Your task to perform on an android device: open sync settings in chrome Image 0: 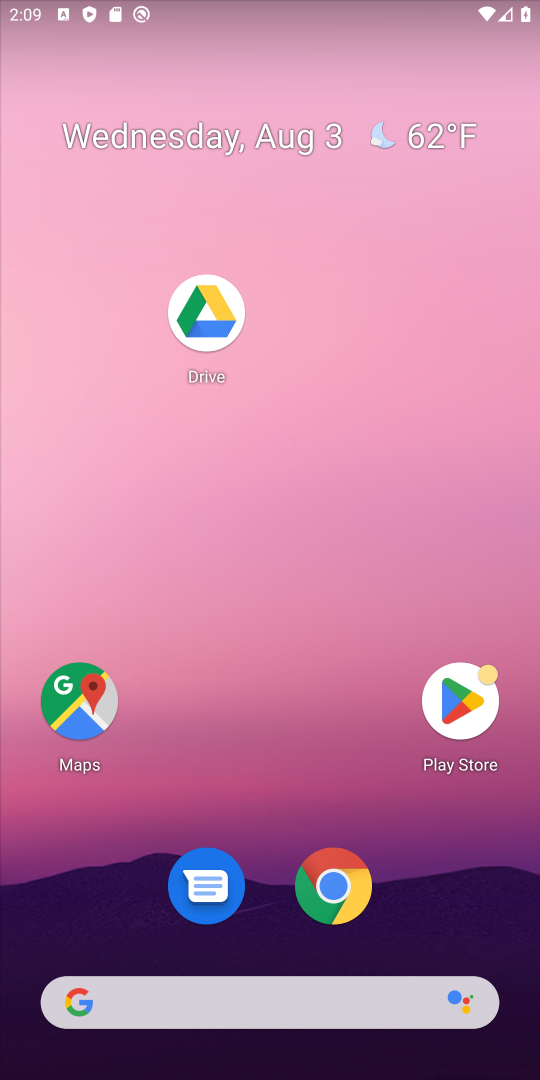
Step 0: drag from (272, 288) to (303, 10)
Your task to perform on an android device: open sync settings in chrome Image 1: 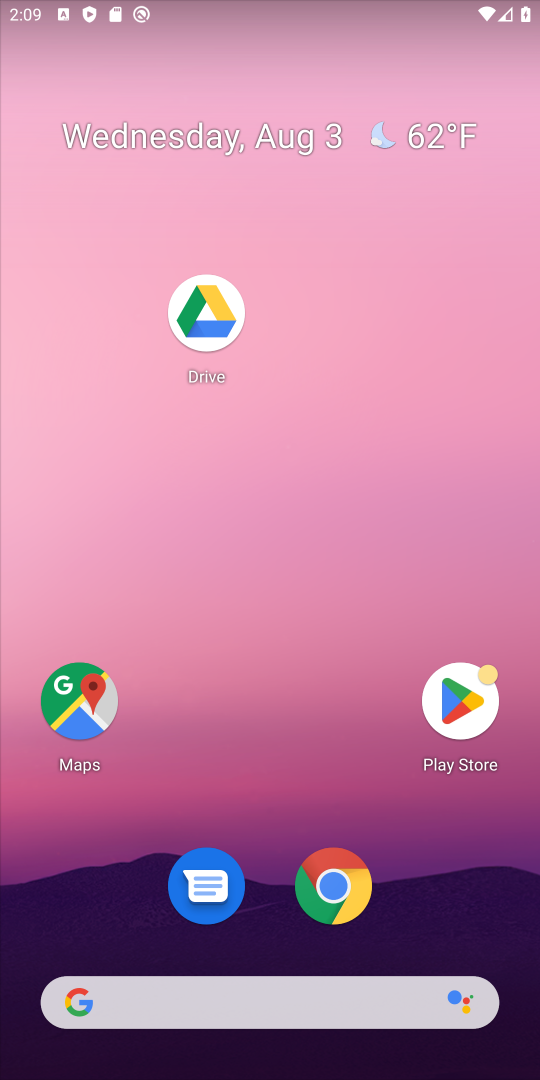
Step 1: drag from (267, 990) to (236, 182)
Your task to perform on an android device: open sync settings in chrome Image 2: 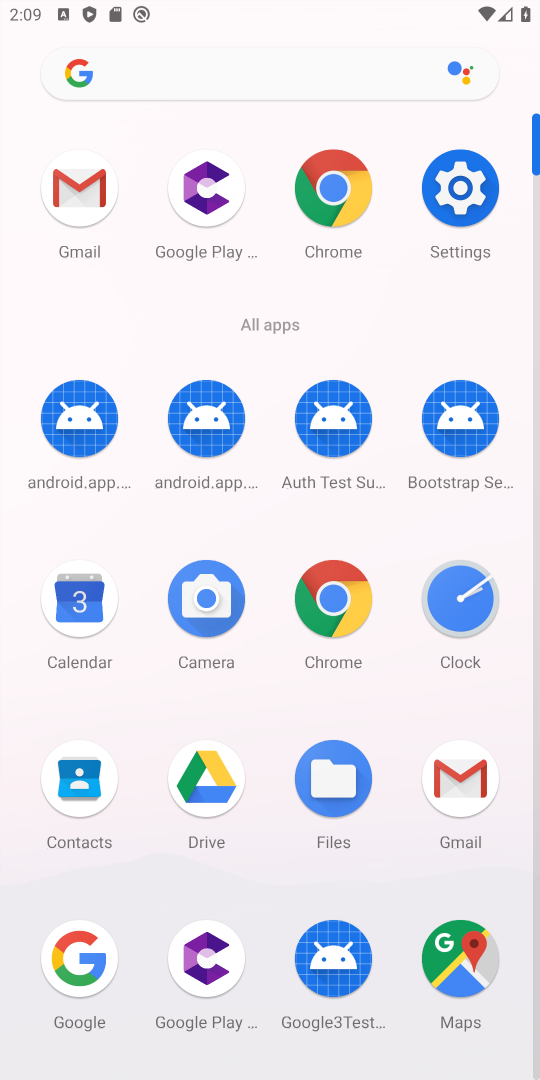
Step 2: click (318, 592)
Your task to perform on an android device: open sync settings in chrome Image 3: 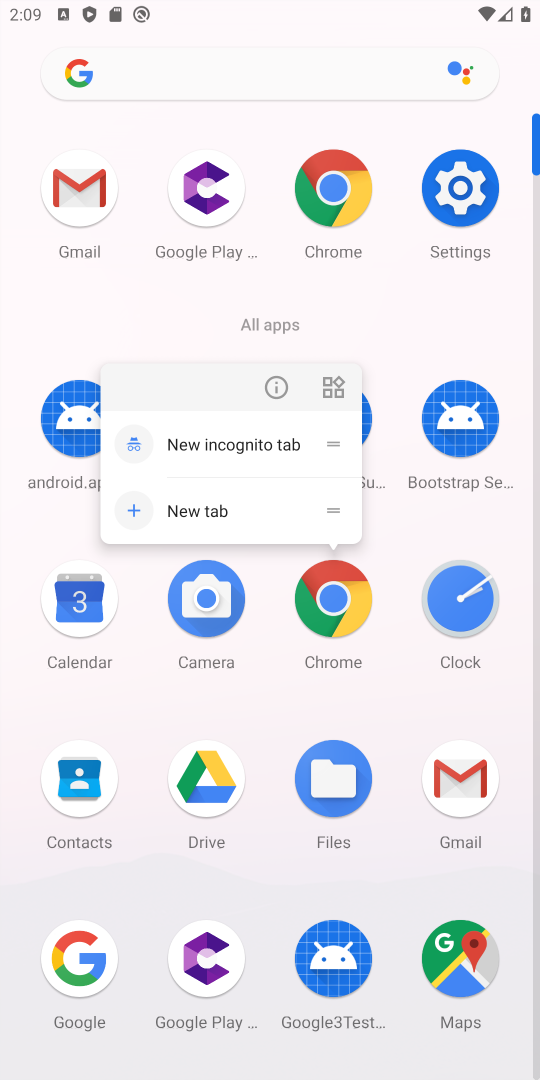
Step 3: click (337, 587)
Your task to perform on an android device: open sync settings in chrome Image 4: 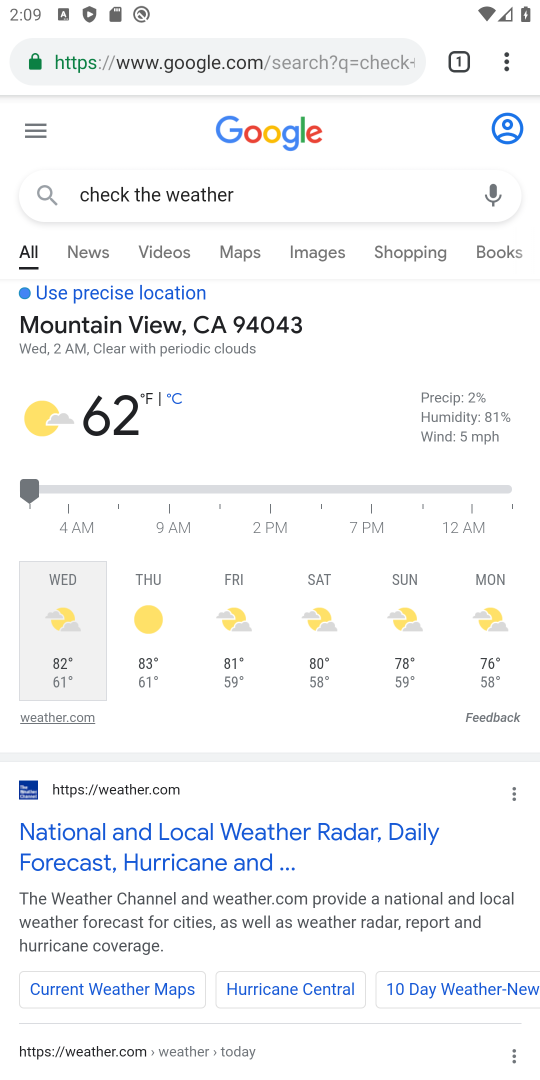
Step 4: drag from (508, 61) to (296, 692)
Your task to perform on an android device: open sync settings in chrome Image 5: 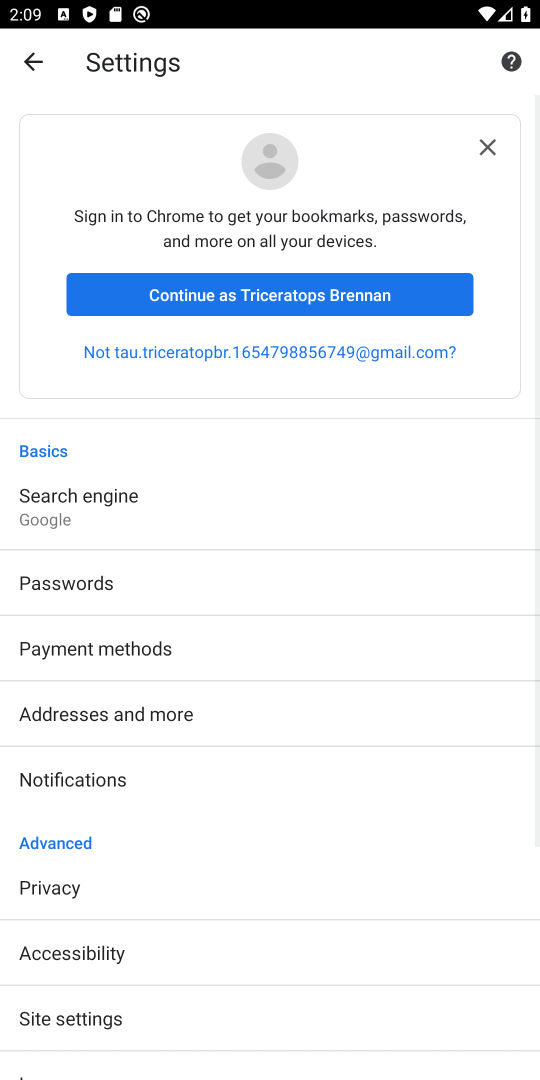
Step 5: drag from (265, 814) to (255, 229)
Your task to perform on an android device: open sync settings in chrome Image 6: 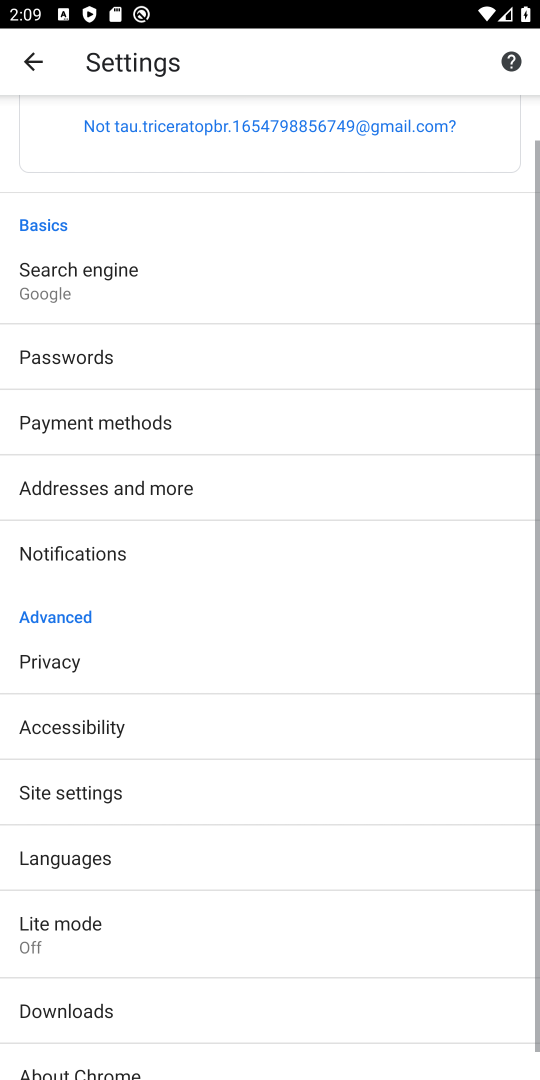
Step 6: click (95, 779)
Your task to perform on an android device: open sync settings in chrome Image 7: 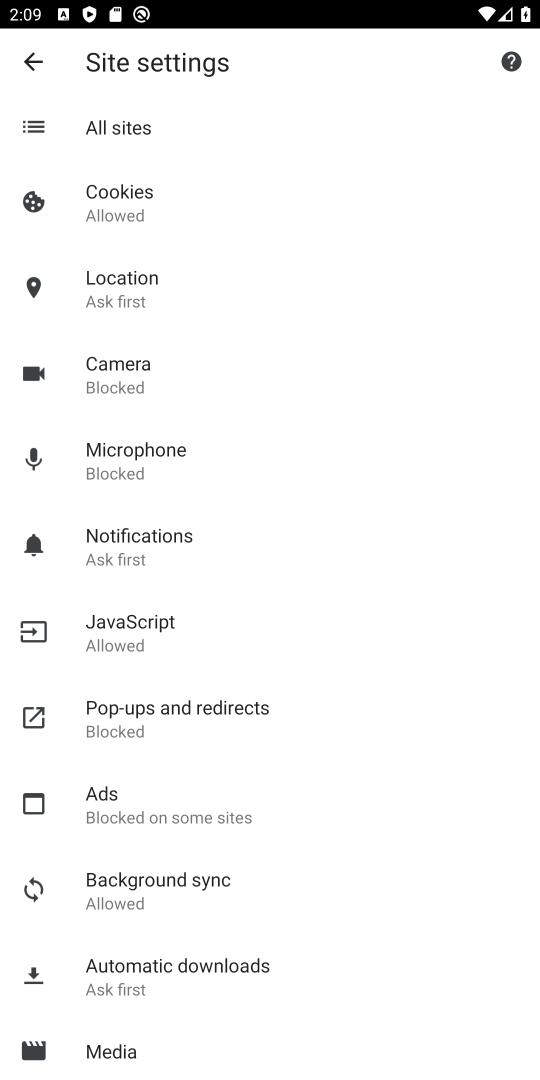
Step 7: click (143, 884)
Your task to perform on an android device: open sync settings in chrome Image 8: 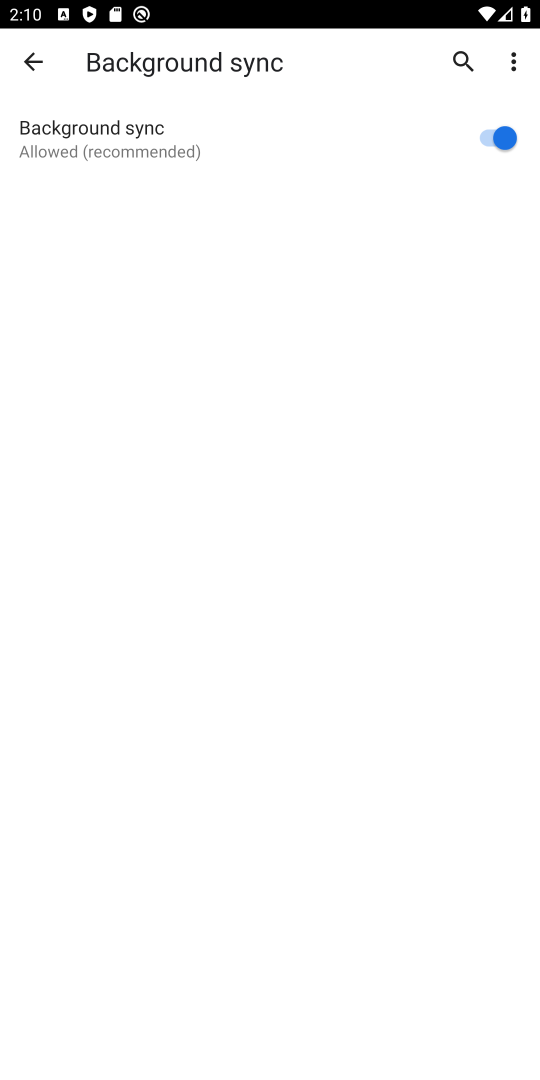
Step 8: task complete